Your task to perform on an android device: Do I have any events today? Image 0: 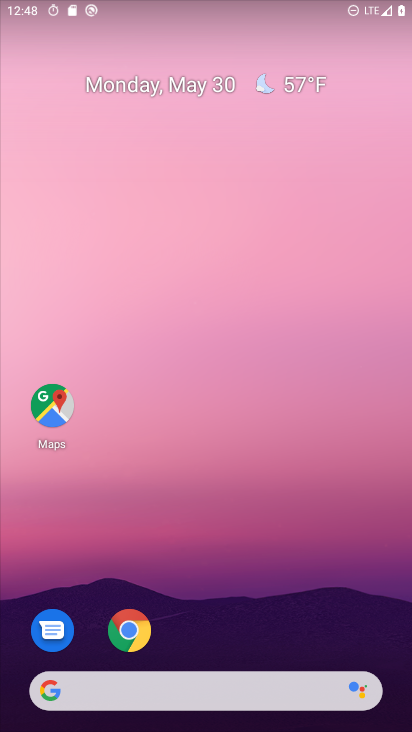
Step 0: drag from (290, 645) to (314, 145)
Your task to perform on an android device: Do I have any events today? Image 1: 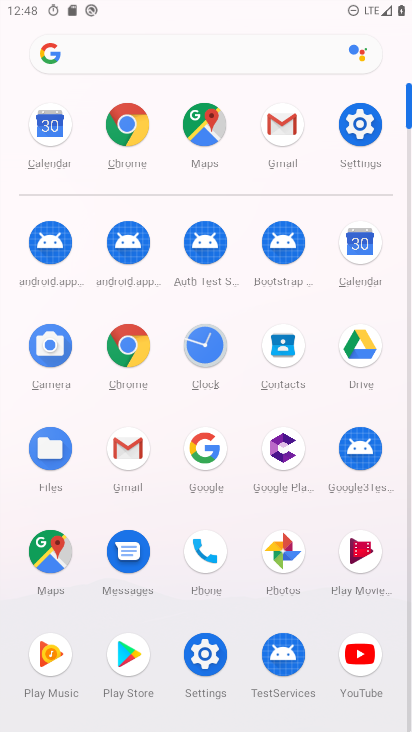
Step 1: click (56, 116)
Your task to perform on an android device: Do I have any events today? Image 2: 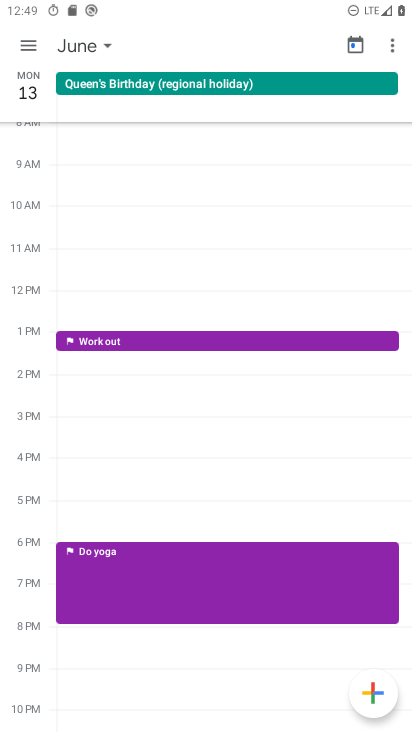
Step 2: click (39, 40)
Your task to perform on an android device: Do I have any events today? Image 3: 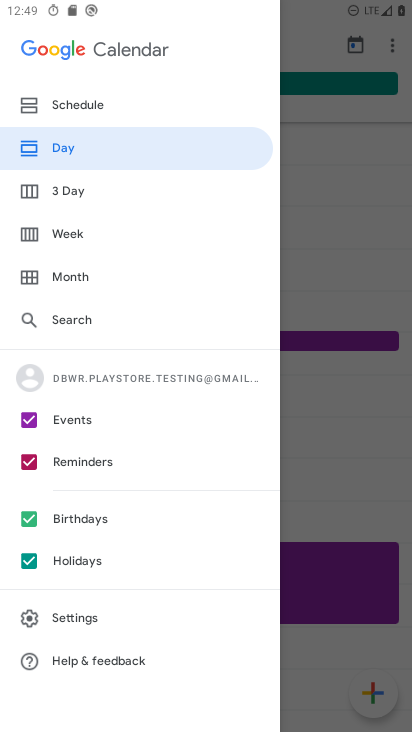
Step 3: click (60, 276)
Your task to perform on an android device: Do I have any events today? Image 4: 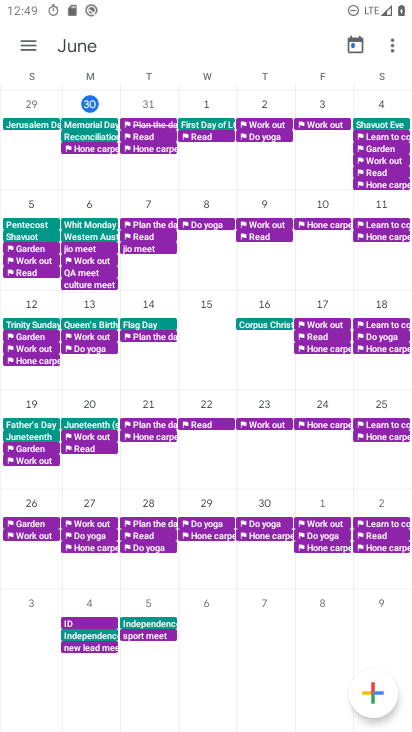
Step 4: drag from (105, 333) to (410, 282)
Your task to perform on an android device: Do I have any events today? Image 5: 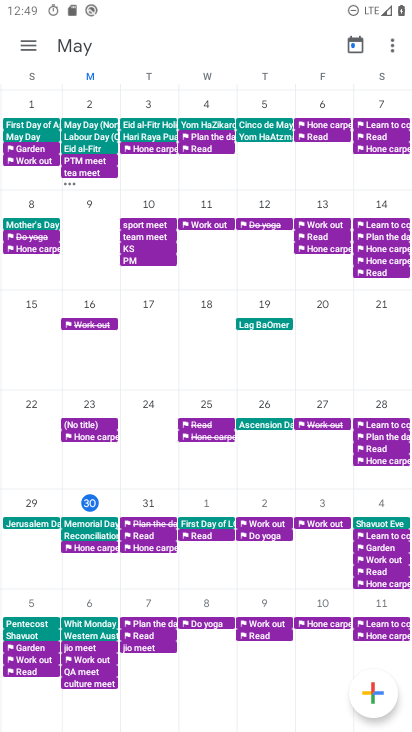
Step 5: click (43, 40)
Your task to perform on an android device: Do I have any events today? Image 6: 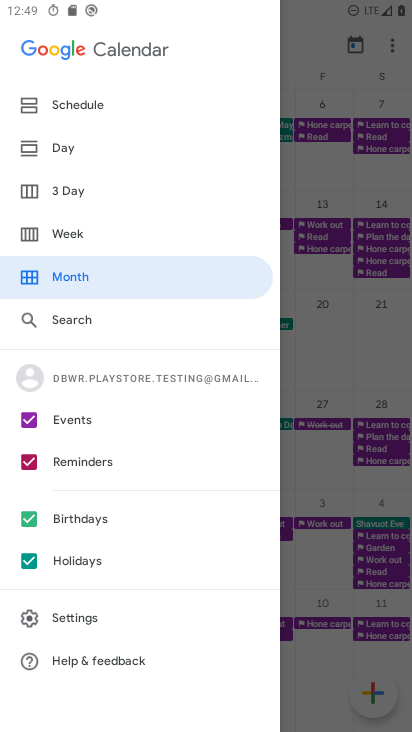
Step 6: click (94, 106)
Your task to perform on an android device: Do I have any events today? Image 7: 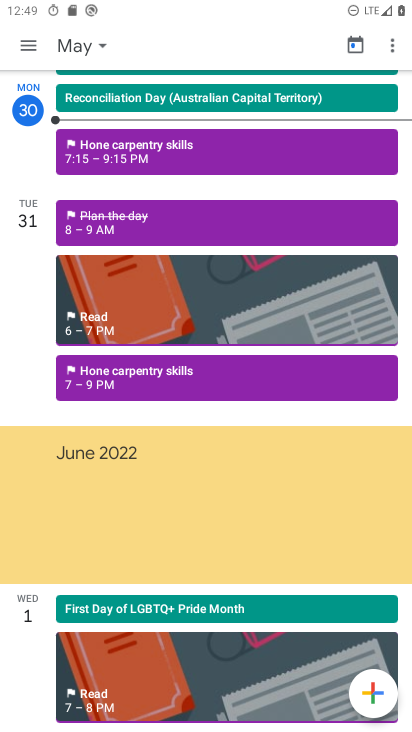
Step 7: task complete